Your task to perform on an android device: turn on javascript in the chrome app Image 0: 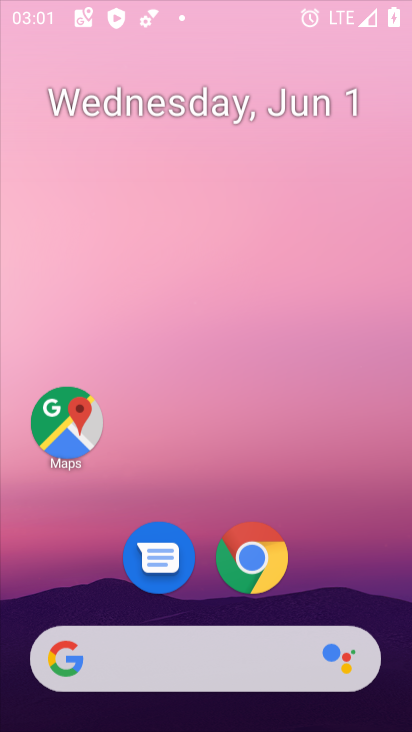
Step 0: press home button
Your task to perform on an android device: turn on javascript in the chrome app Image 1: 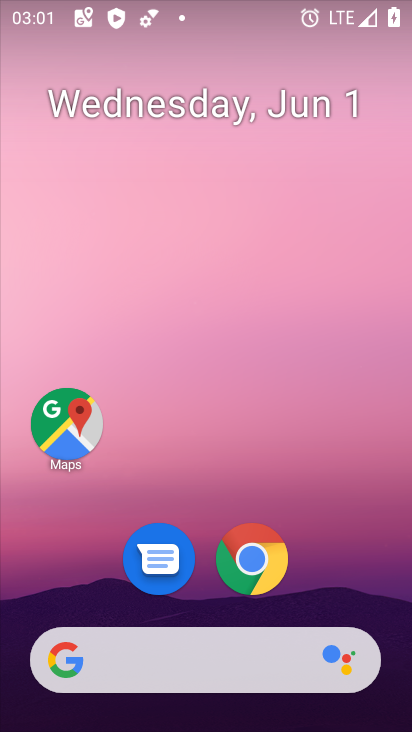
Step 1: click (252, 561)
Your task to perform on an android device: turn on javascript in the chrome app Image 2: 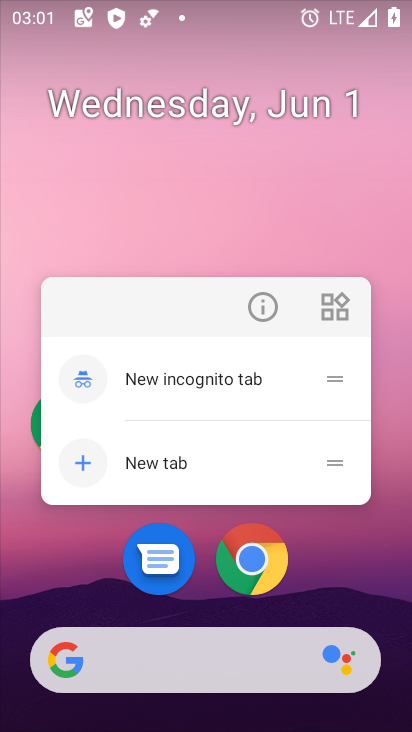
Step 2: click (259, 553)
Your task to perform on an android device: turn on javascript in the chrome app Image 3: 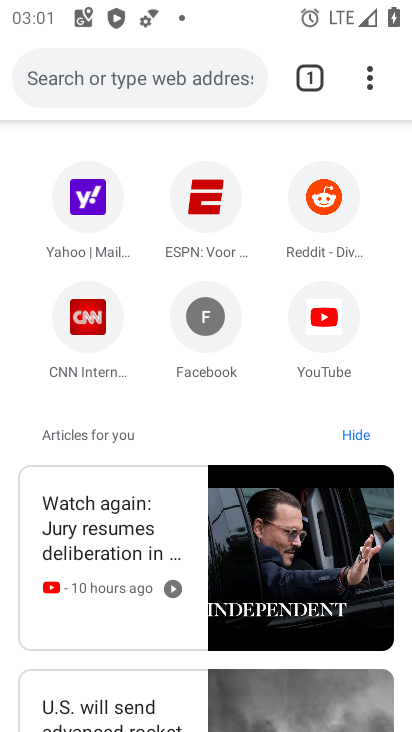
Step 3: drag from (378, 78) to (88, 631)
Your task to perform on an android device: turn on javascript in the chrome app Image 4: 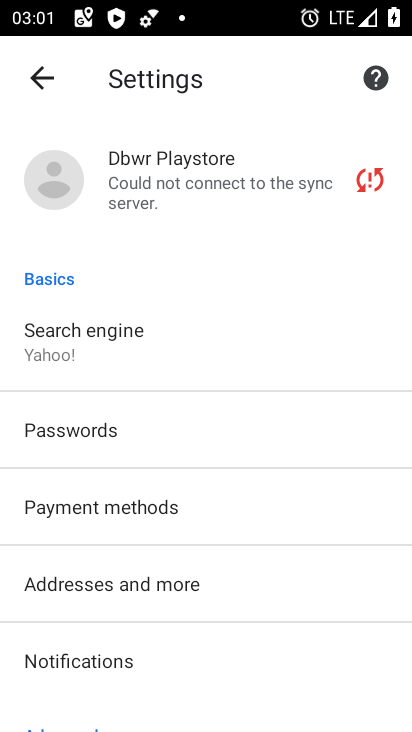
Step 4: drag from (202, 646) to (264, 294)
Your task to perform on an android device: turn on javascript in the chrome app Image 5: 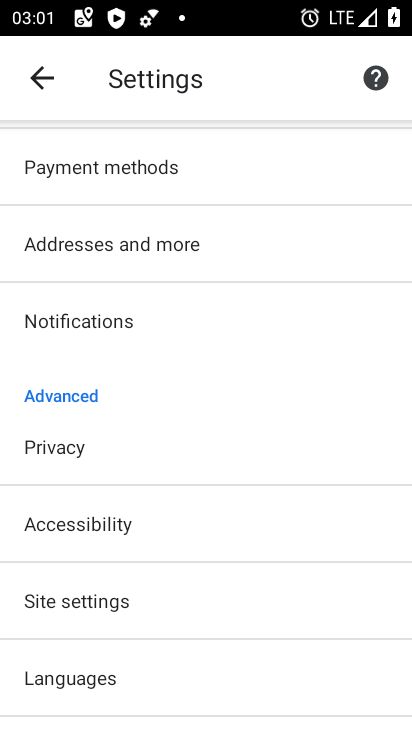
Step 5: click (77, 606)
Your task to perform on an android device: turn on javascript in the chrome app Image 6: 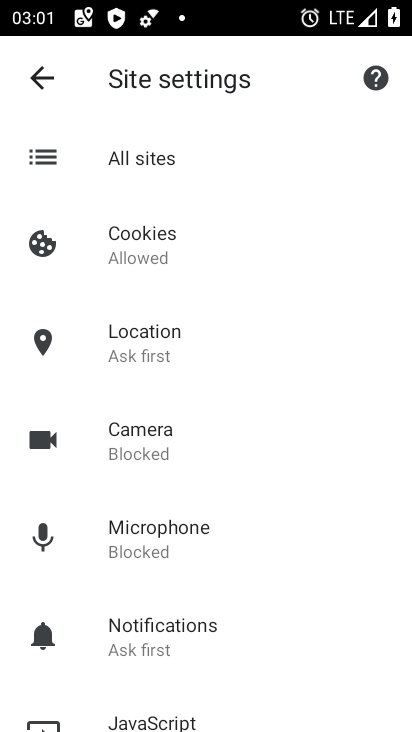
Step 6: drag from (314, 634) to (337, 371)
Your task to perform on an android device: turn on javascript in the chrome app Image 7: 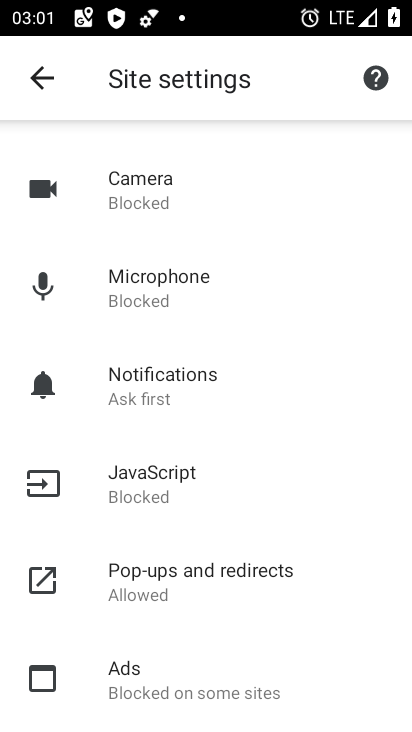
Step 7: click (148, 475)
Your task to perform on an android device: turn on javascript in the chrome app Image 8: 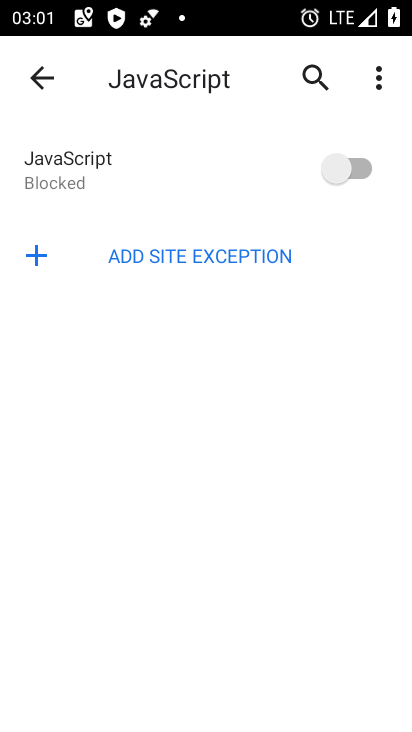
Step 8: click (356, 173)
Your task to perform on an android device: turn on javascript in the chrome app Image 9: 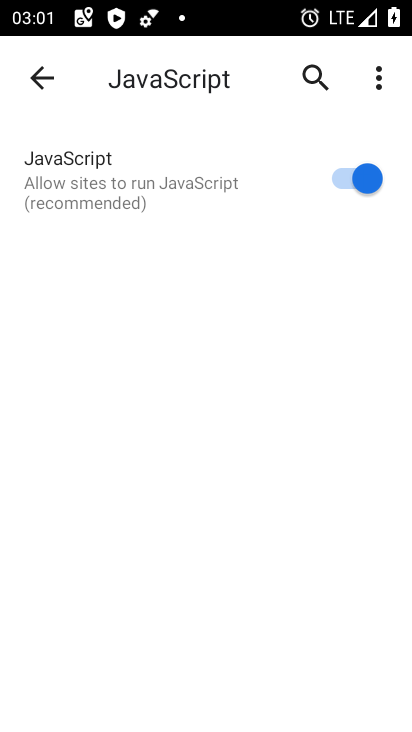
Step 9: task complete